Your task to perform on an android device: uninstall "Duolingo: language lessons" Image 0: 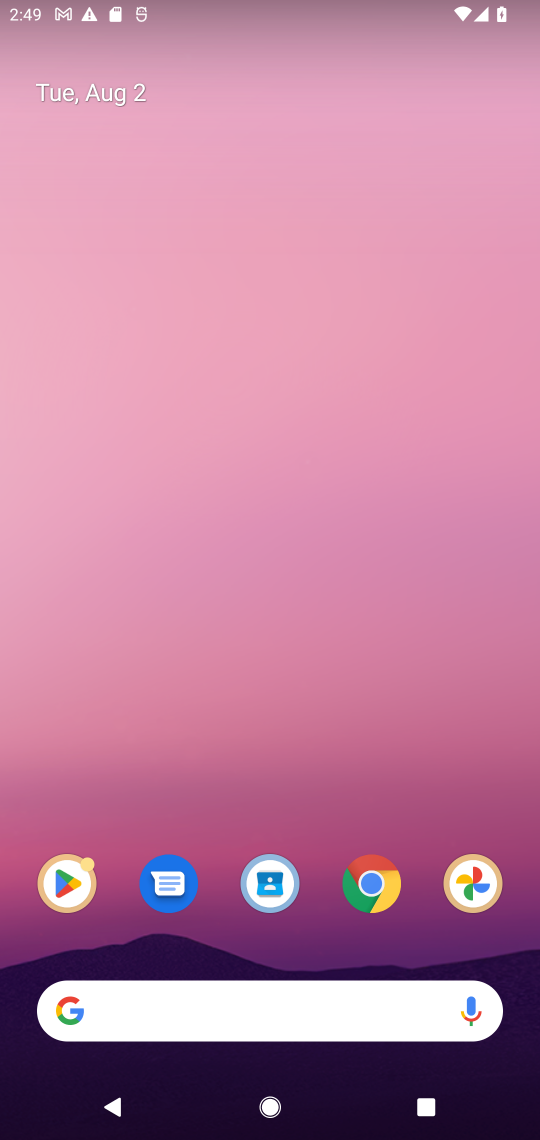
Step 0: drag from (364, 729) to (335, 151)
Your task to perform on an android device: uninstall "Duolingo: language lessons" Image 1: 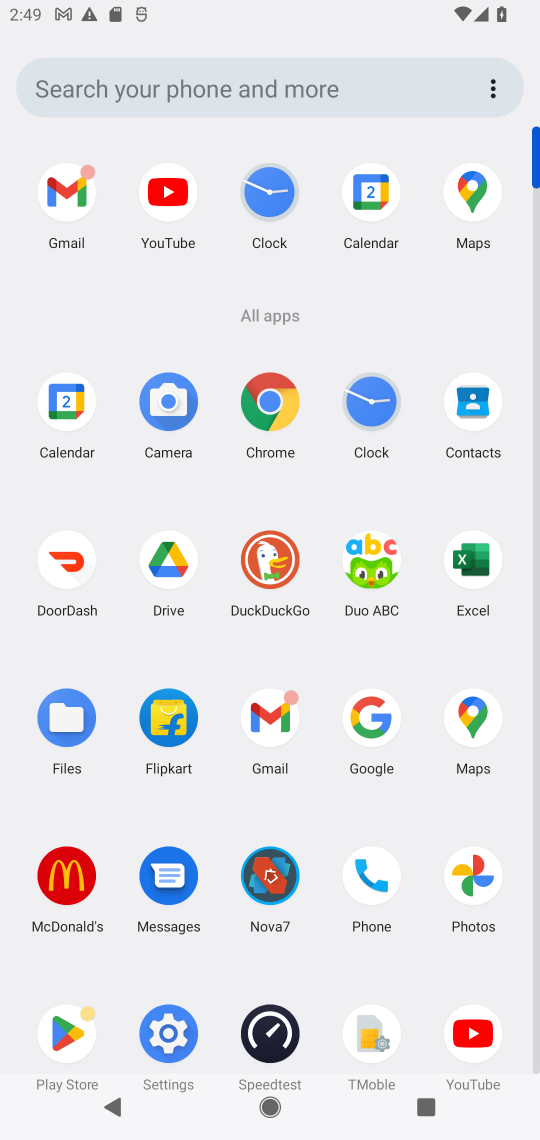
Step 1: click (79, 1028)
Your task to perform on an android device: uninstall "Duolingo: language lessons" Image 2: 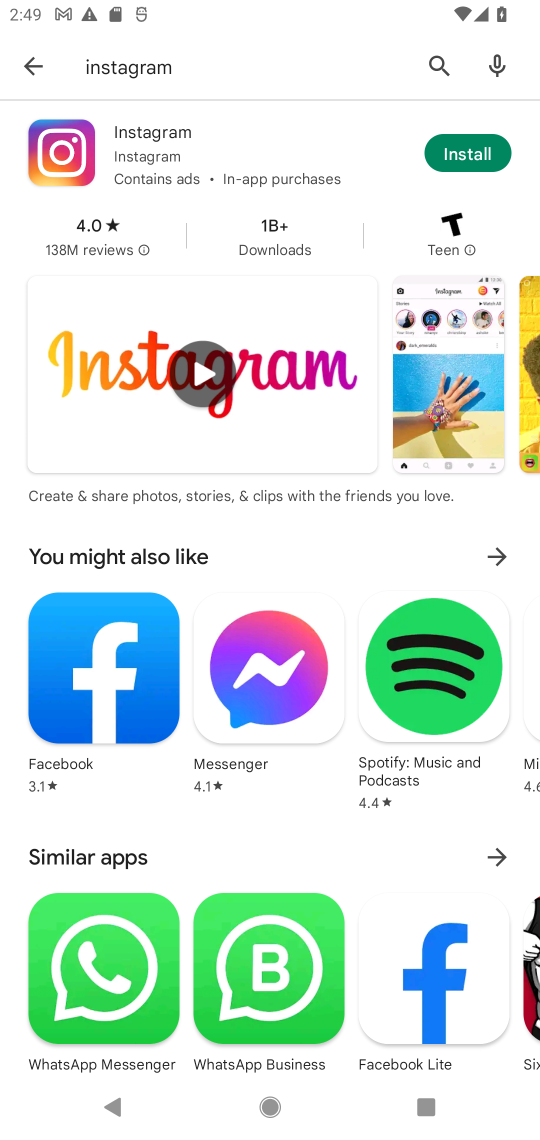
Step 2: click (426, 59)
Your task to perform on an android device: uninstall "Duolingo: language lessons" Image 3: 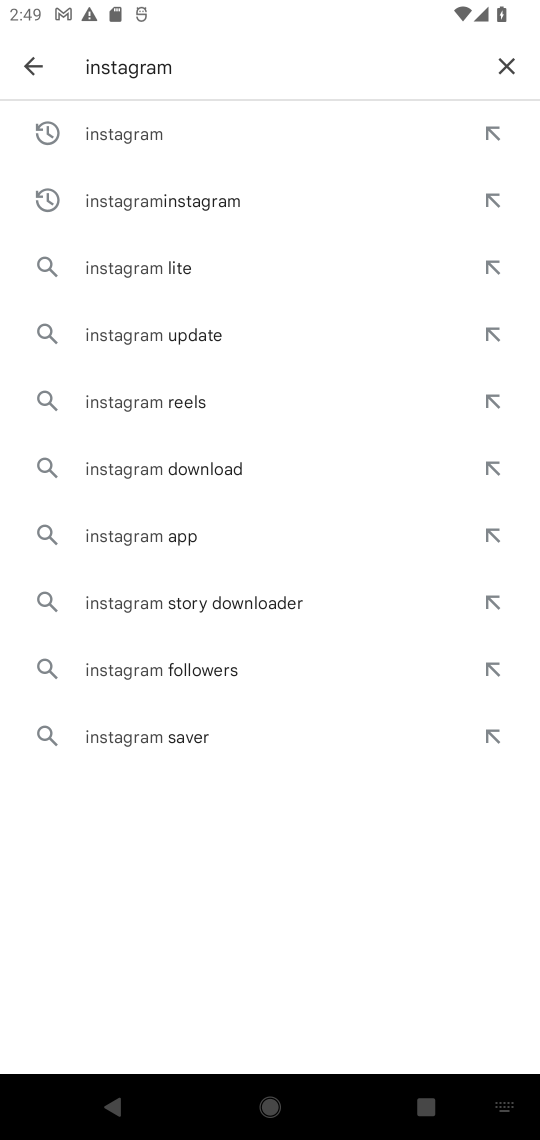
Step 3: click (504, 76)
Your task to perform on an android device: uninstall "Duolingo: language lessons" Image 4: 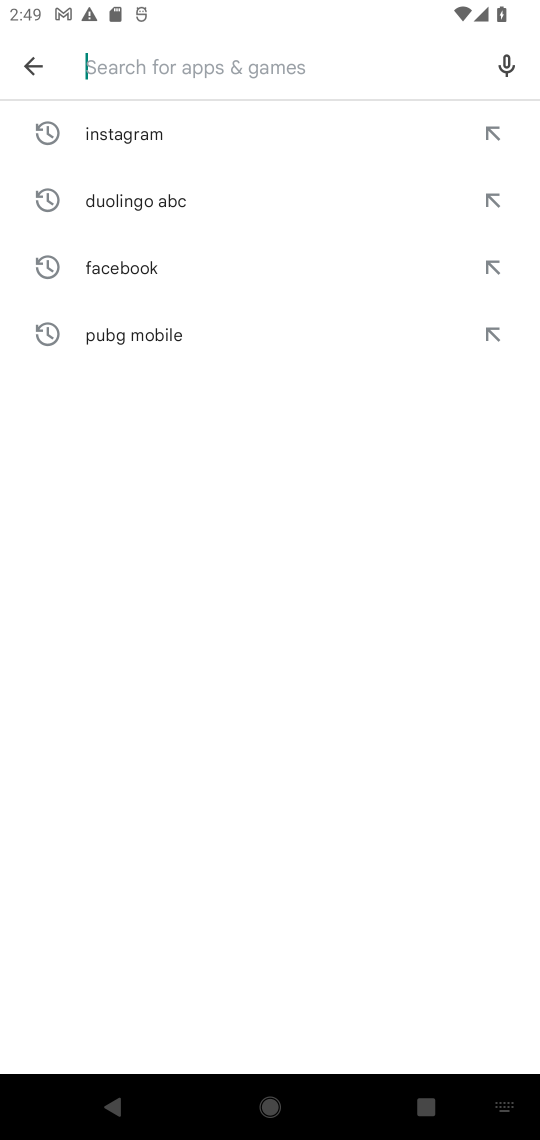
Step 4: type "Duolingo: language lessons"
Your task to perform on an android device: uninstall "Duolingo: language lessons" Image 5: 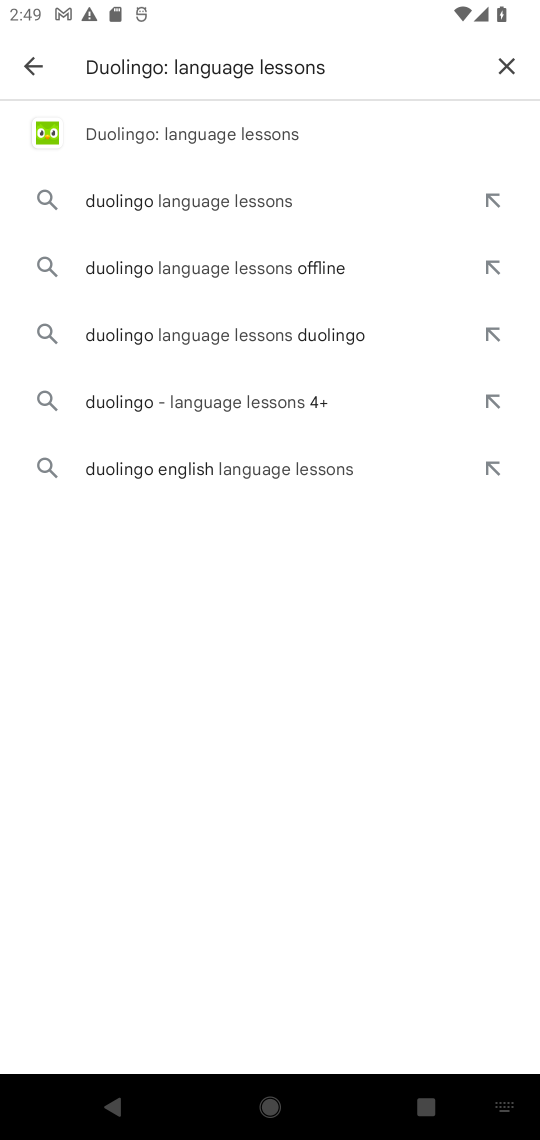
Step 5: click (217, 130)
Your task to perform on an android device: uninstall "Duolingo: language lessons" Image 6: 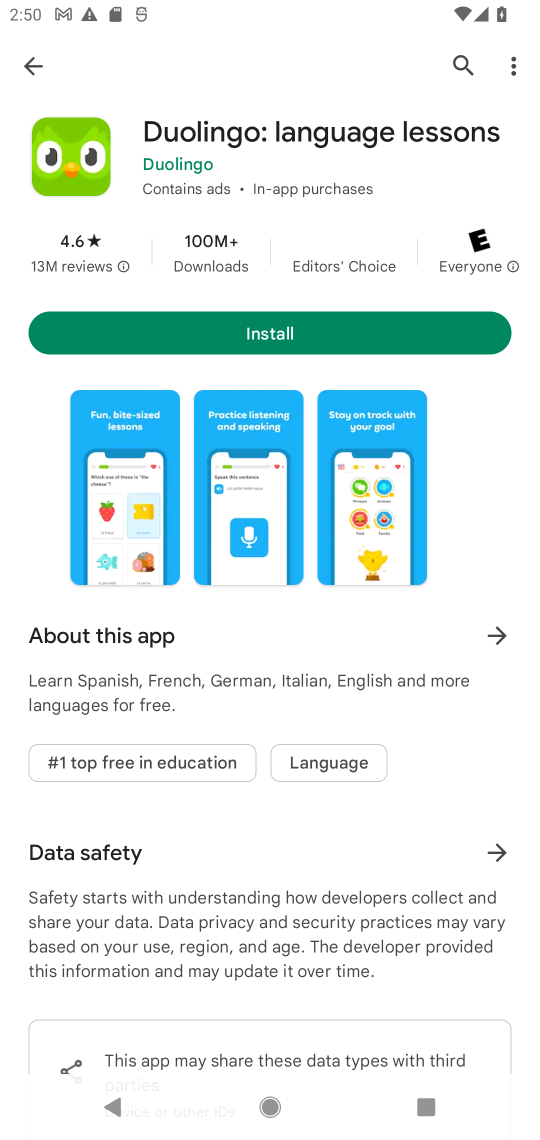
Step 6: press home button
Your task to perform on an android device: uninstall "Duolingo: language lessons" Image 7: 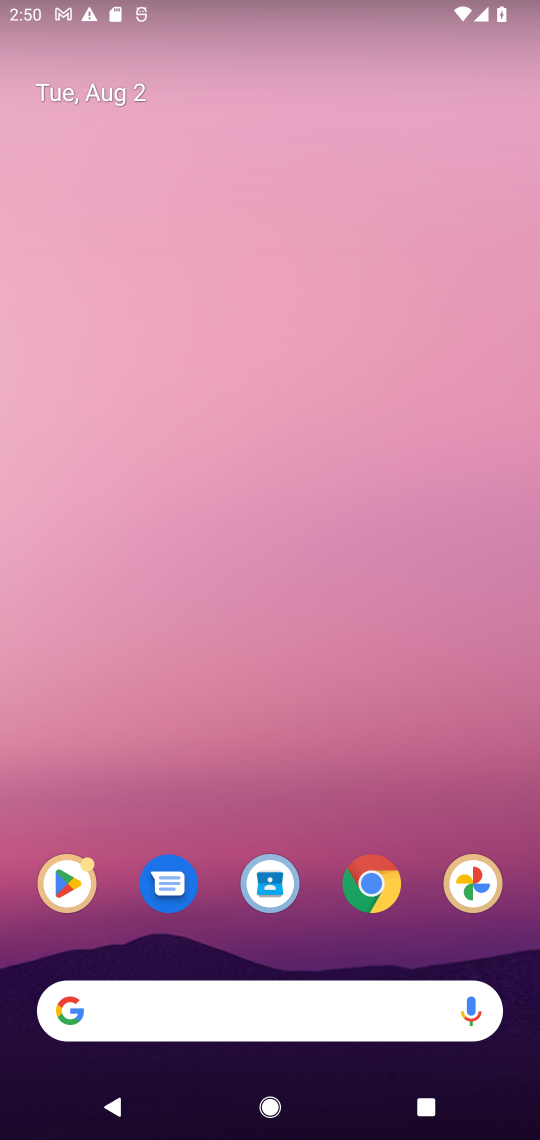
Step 7: drag from (289, 362) to (240, 174)
Your task to perform on an android device: uninstall "Duolingo: language lessons" Image 8: 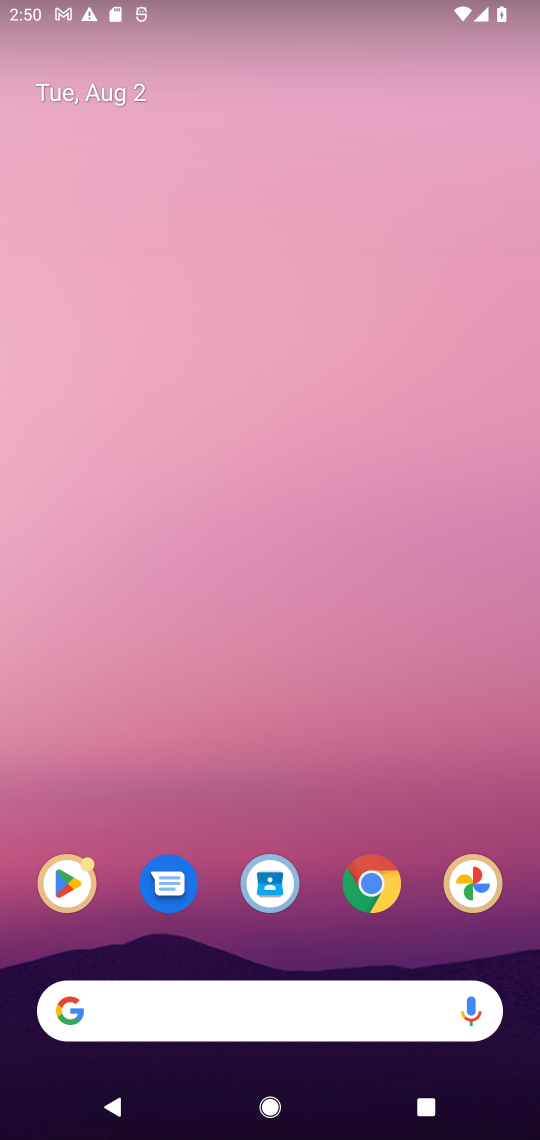
Step 8: drag from (250, 780) to (181, 132)
Your task to perform on an android device: uninstall "Duolingo: language lessons" Image 9: 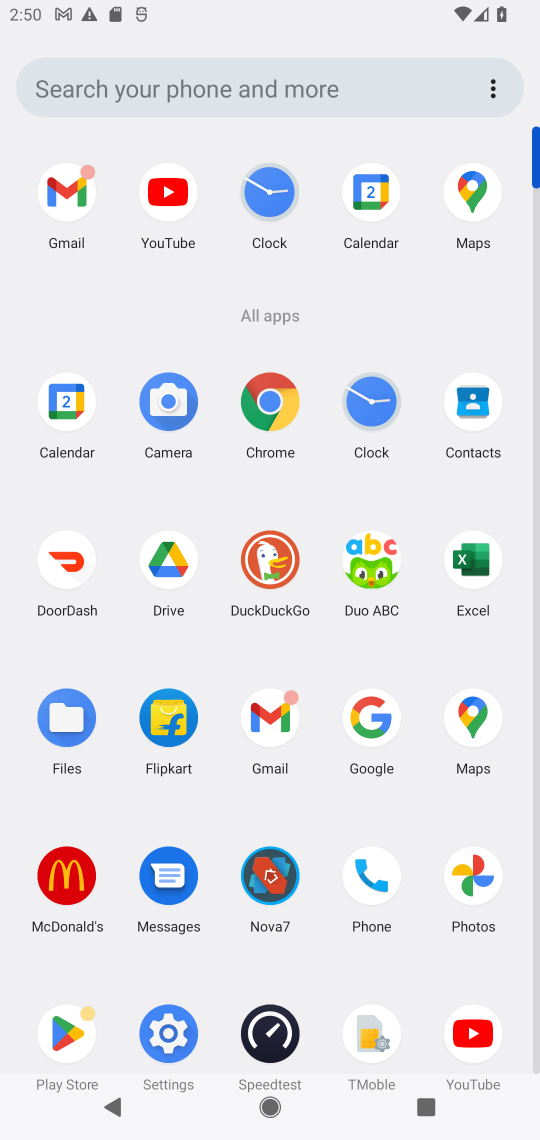
Step 9: click (358, 73)
Your task to perform on an android device: uninstall "Duolingo: language lessons" Image 10: 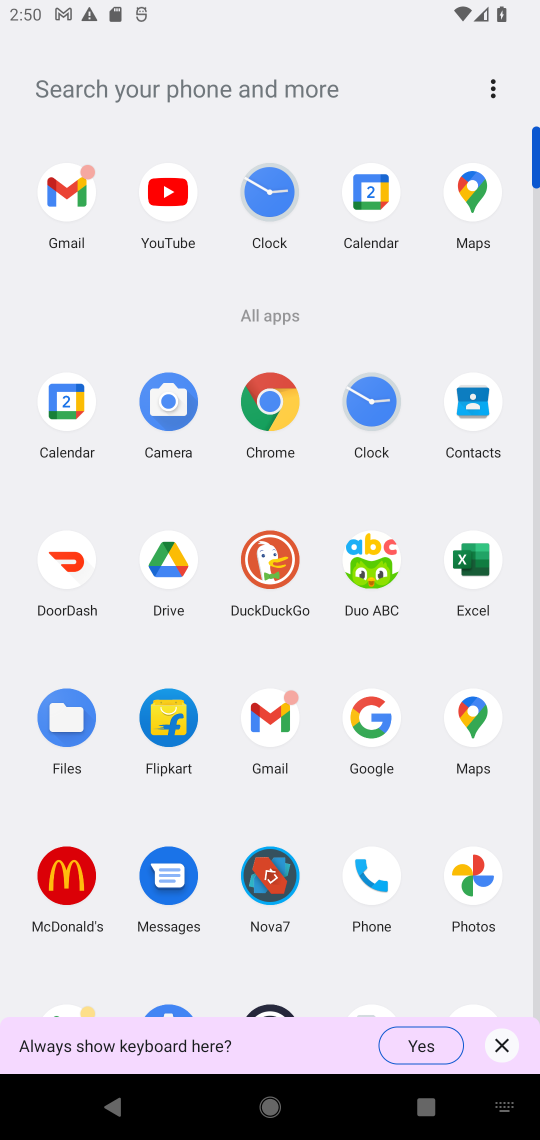
Step 10: click (358, 73)
Your task to perform on an android device: uninstall "Duolingo: language lessons" Image 11: 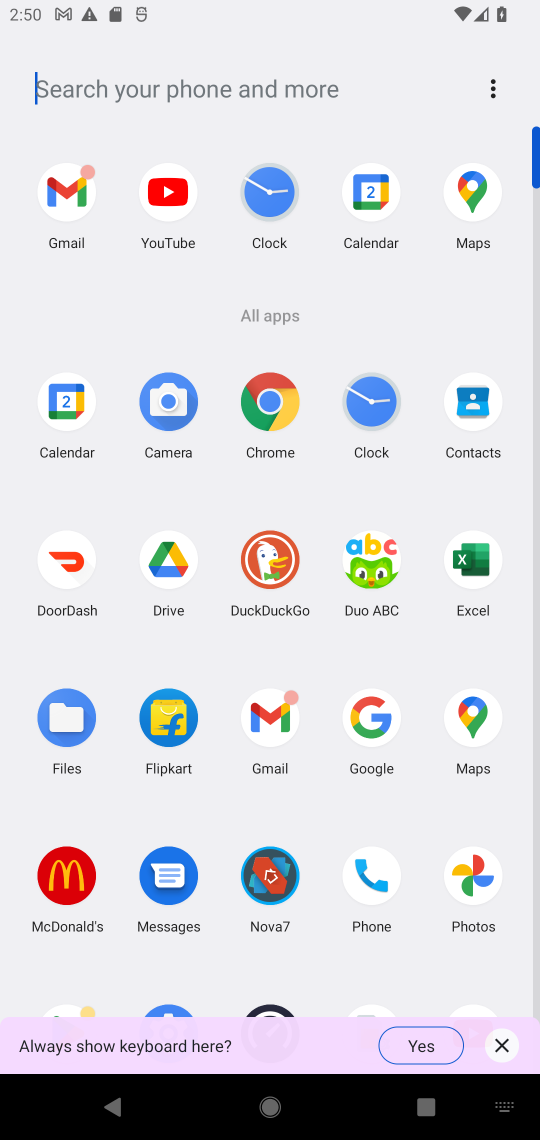
Step 11: click (358, 73)
Your task to perform on an android device: uninstall "Duolingo: language lessons" Image 12: 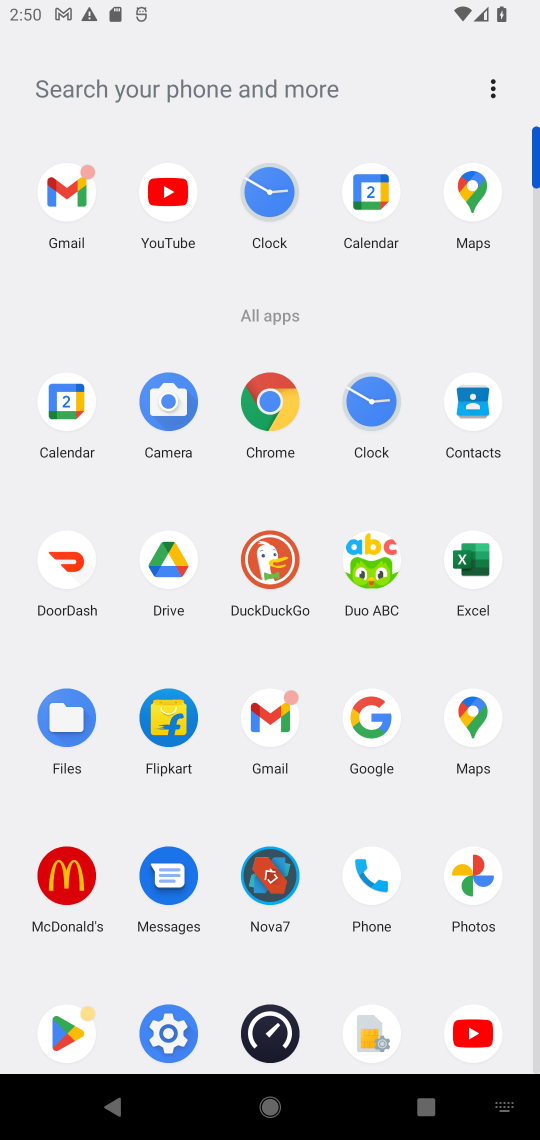
Step 12: click (39, 1025)
Your task to perform on an android device: uninstall "Duolingo: language lessons" Image 13: 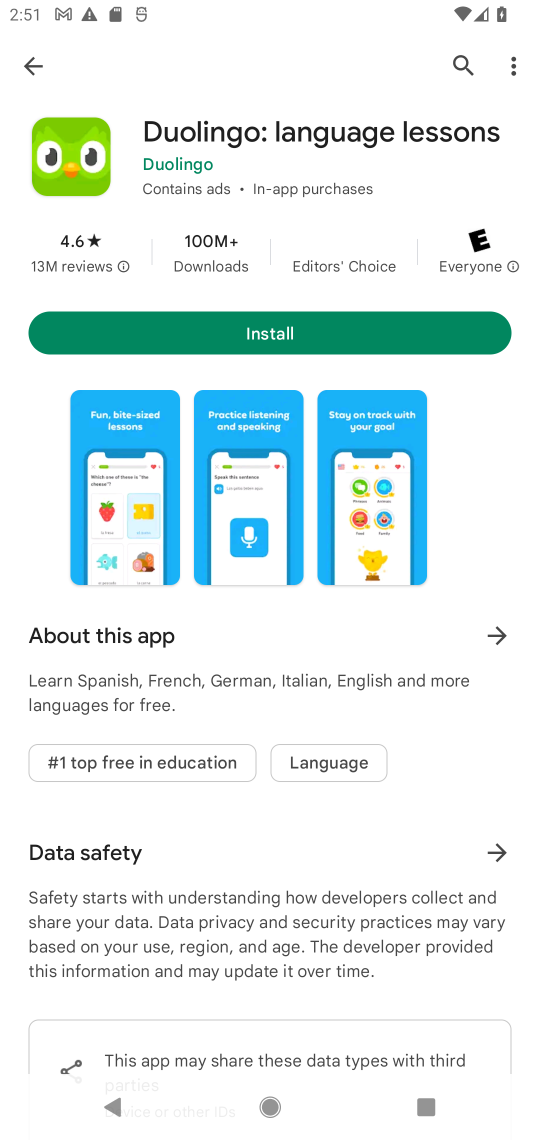
Step 13: task complete